Your task to perform on an android device: change the upload size in google photos Image 0: 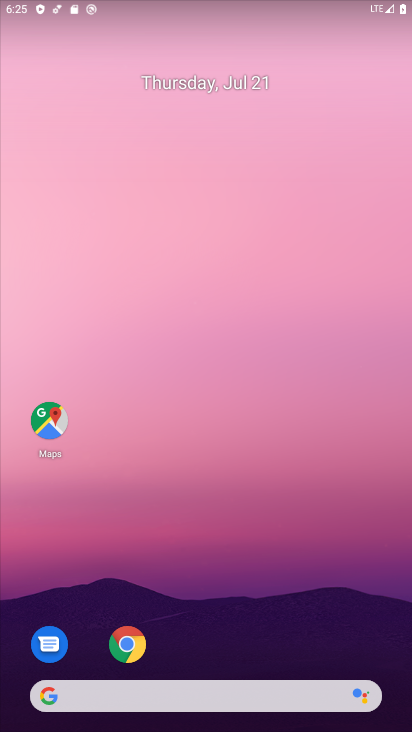
Step 0: drag from (115, 688) to (221, 4)
Your task to perform on an android device: change the upload size in google photos Image 1: 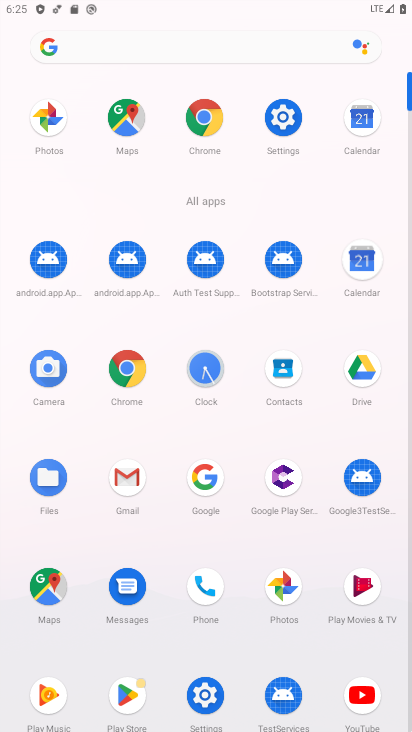
Step 1: click (37, 116)
Your task to perform on an android device: change the upload size in google photos Image 2: 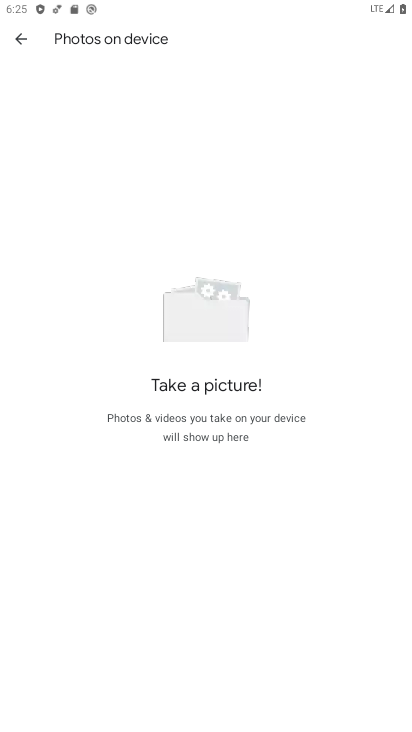
Step 2: click (23, 38)
Your task to perform on an android device: change the upload size in google photos Image 3: 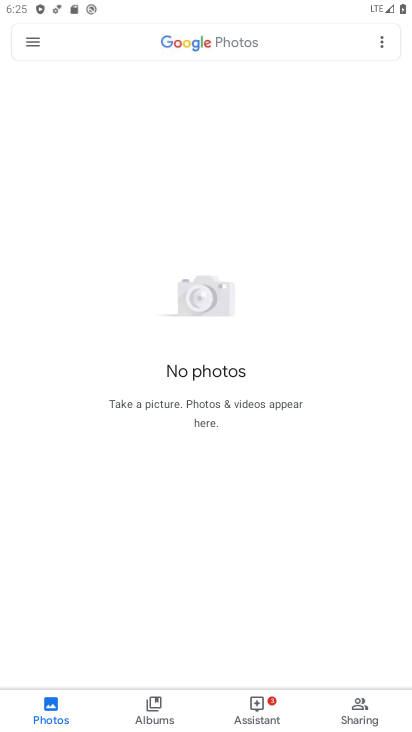
Step 3: click (32, 37)
Your task to perform on an android device: change the upload size in google photos Image 4: 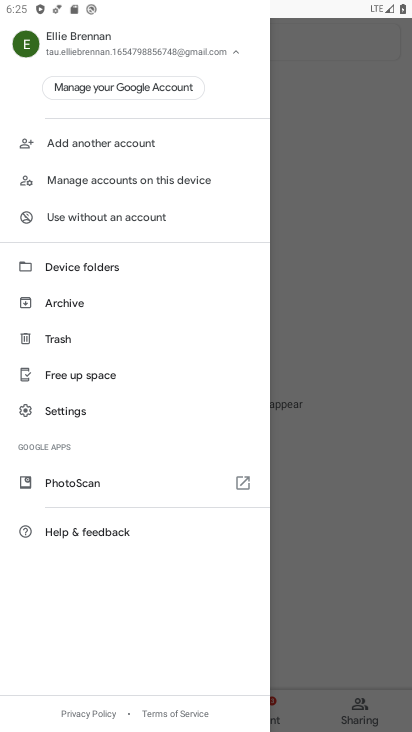
Step 4: click (80, 404)
Your task to perform on an android device: change the upload size in google photos Image 5: 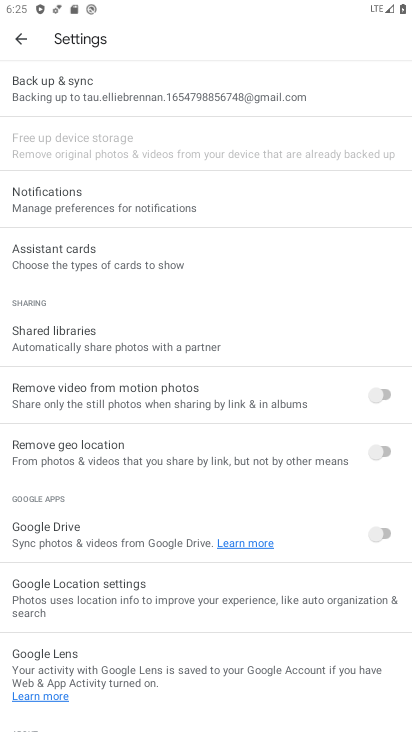
Step 5: click (156, 83)
Your task to perform on an android device: change the upload size in google photos Image 6: 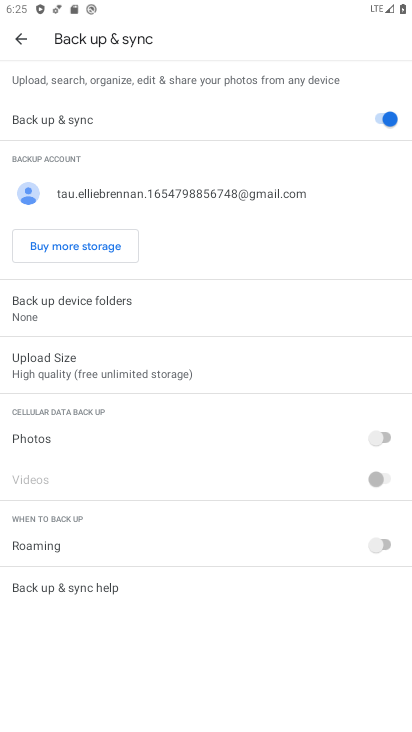
Step 6: click (137, 368)
Your task to perform on an android device: change the upload size in google photos Image 7: 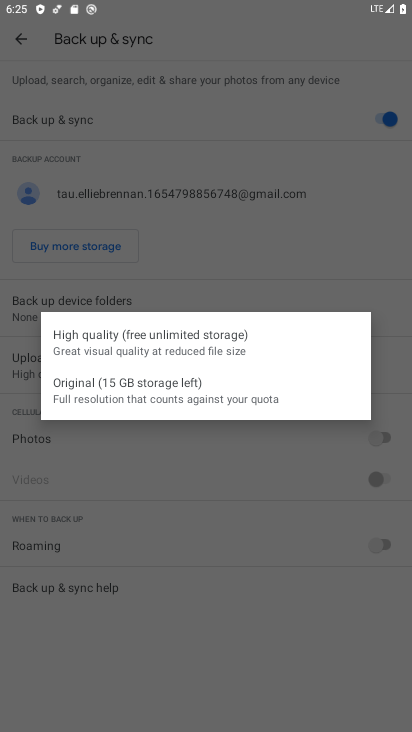
Step 7: click (149, 389)
Your task to perform on an android device: change the upload size in google photos Image 8: 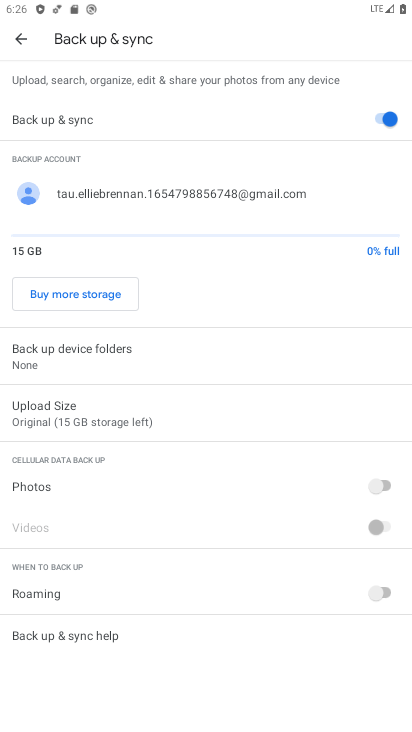
Step 8: task complete